Your task to perform on an android device: uninstall "The Home Depot" Image 0: 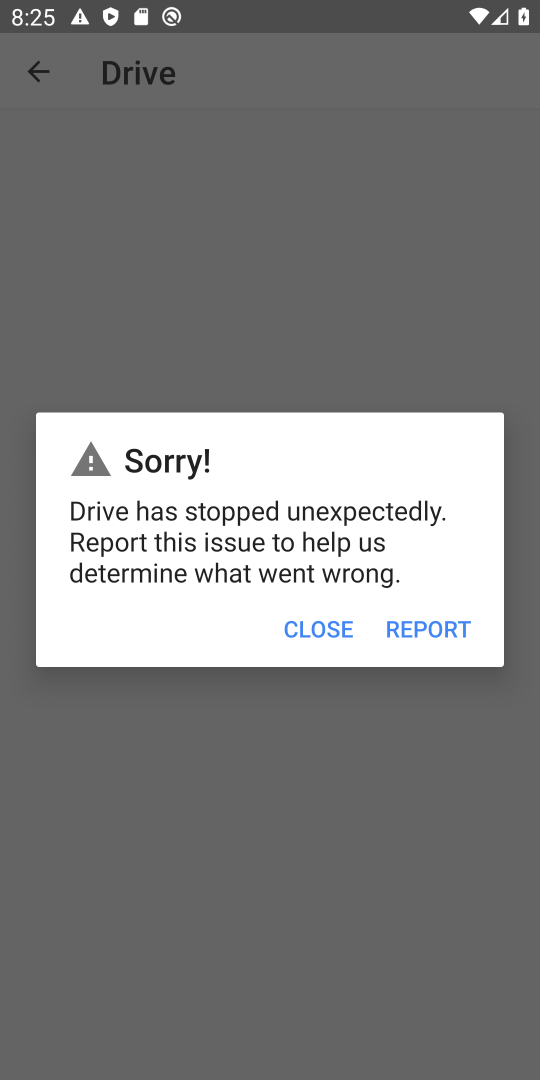
Step 0: press home button
Your task to perform on an android device: uninstall "The Home Depot" Image 1: 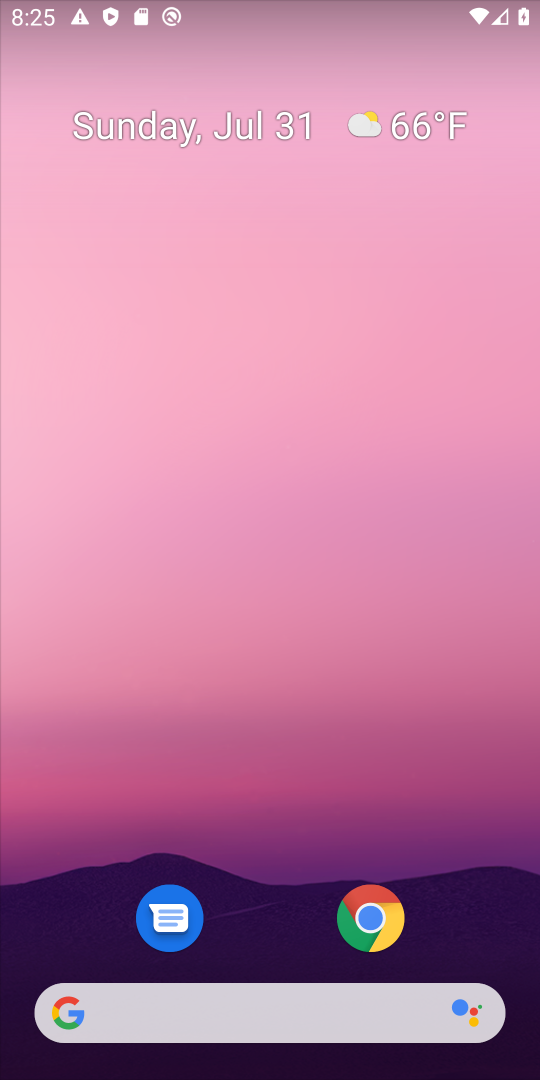
Step 1: drag from (226, 1056) to (252, 0)
Your task to perform on an android device: uninstall "The Home Depot" Image 2: 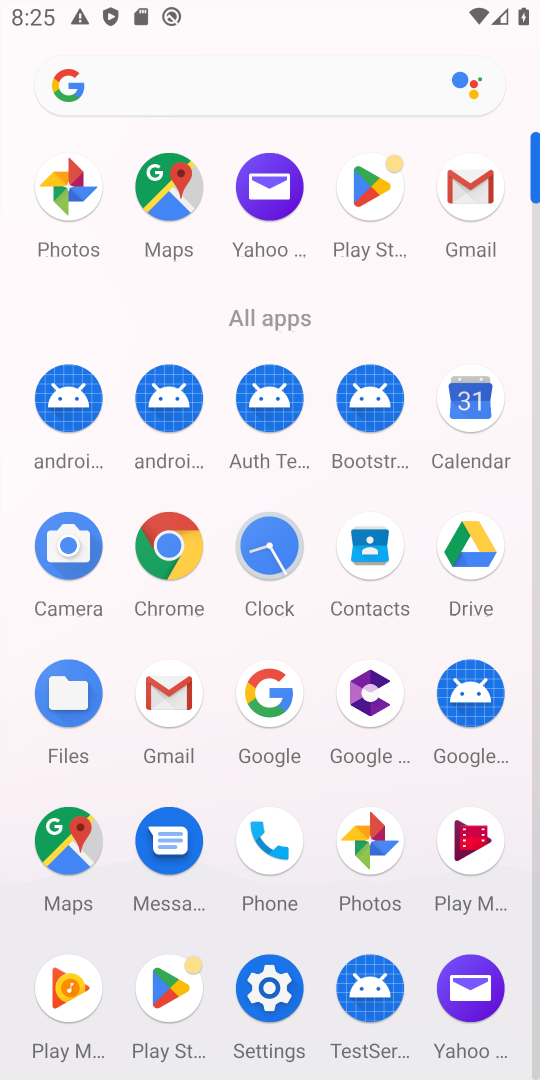
Step 2: click (358, 156)
Your task to perform on an android device: uninstall "The Home Depot" Image 3: 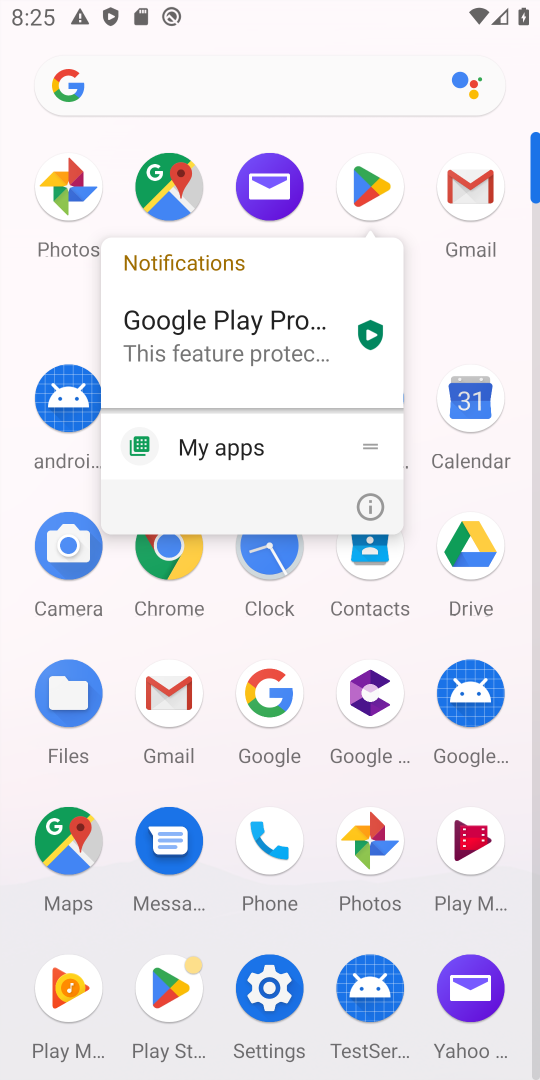
Step 3: click (358, 156)
Your task to perform on an android device: uninstall "The Home Depot" Image 4: 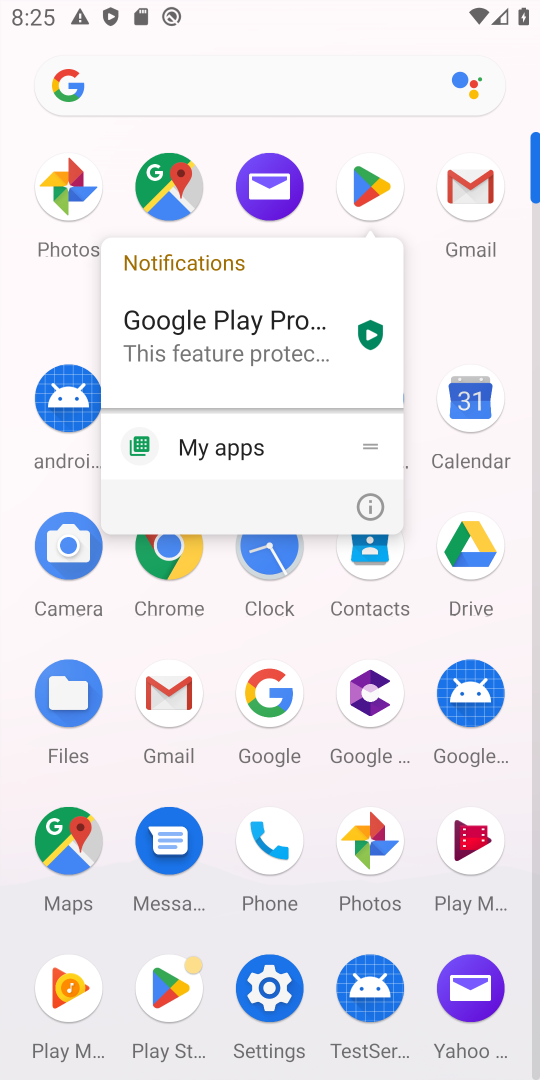
Step 4: click (358, 156)
Your task to perform on an android device: uninstall "The Home Depot" Image 5: 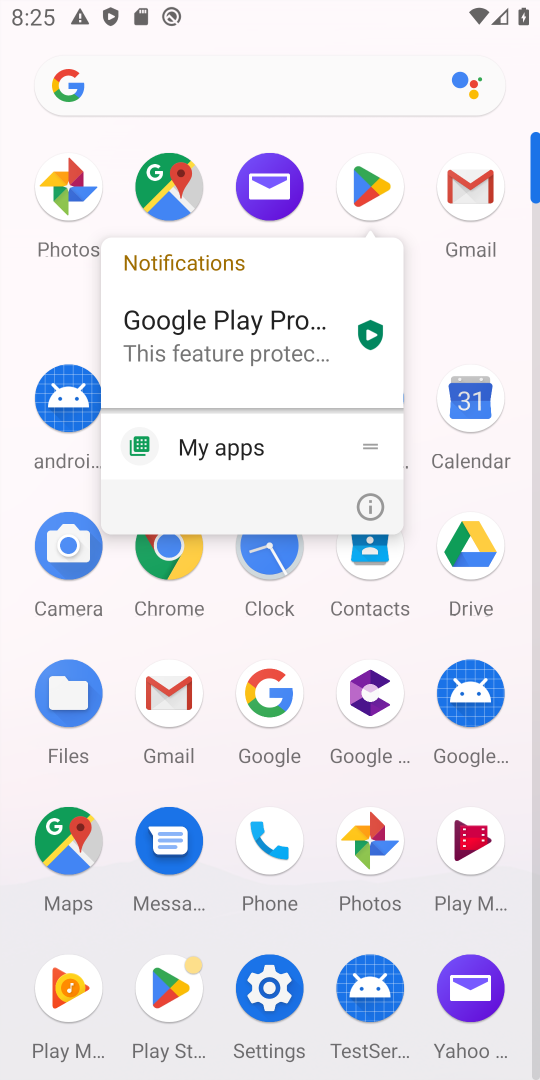
Step 5: click (385, 199)
Your task to perform on an android device: uninstall "The Home Depot" Image 6: 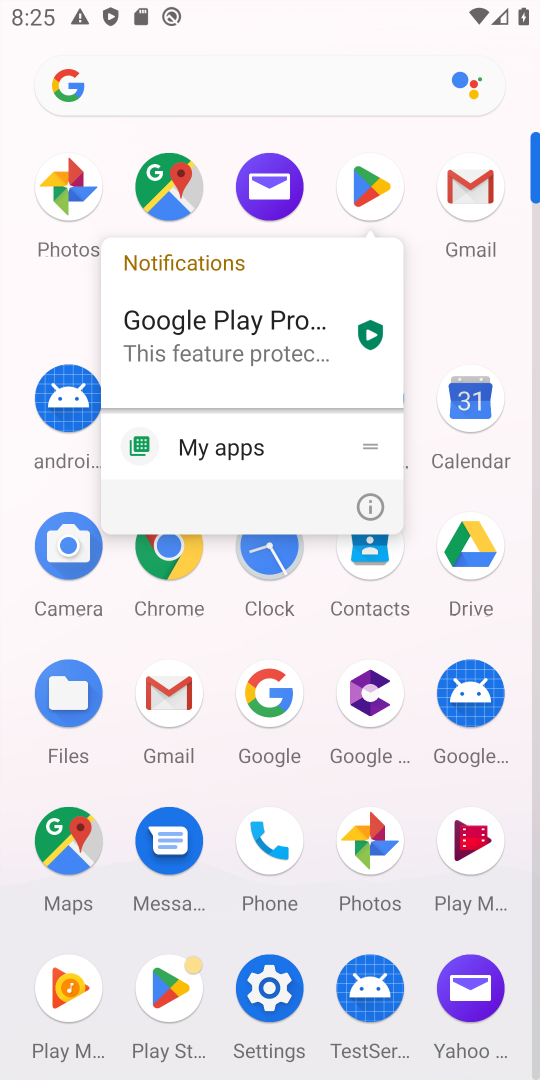
Step 6: click (385, 199)
Your task to perform on an android device: uninstall "The Home Depot" Image 7: 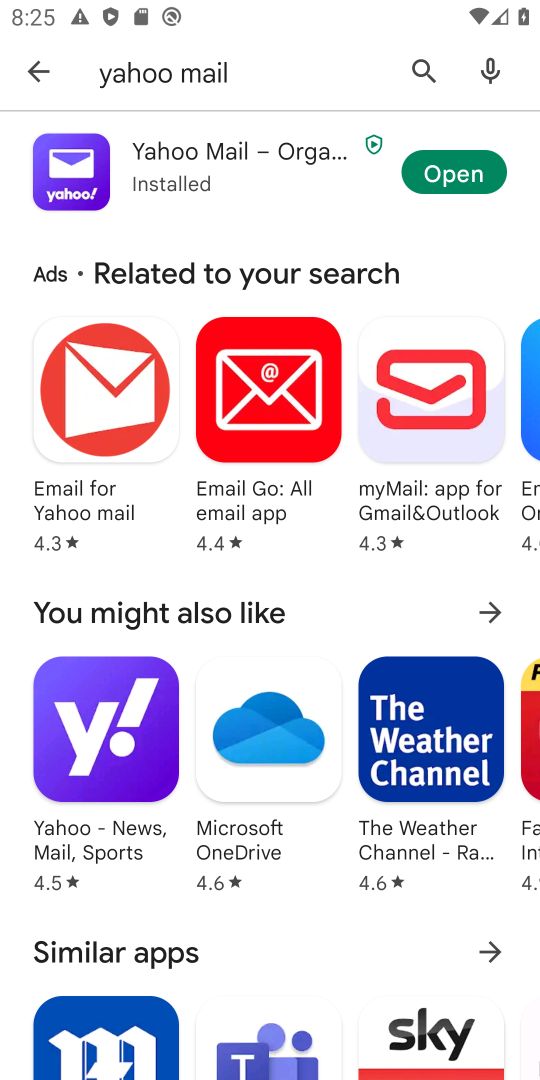
Step 7: click (420, 68)
Your task to perform on an android device: uninstall "The Home Depot" Image 8: 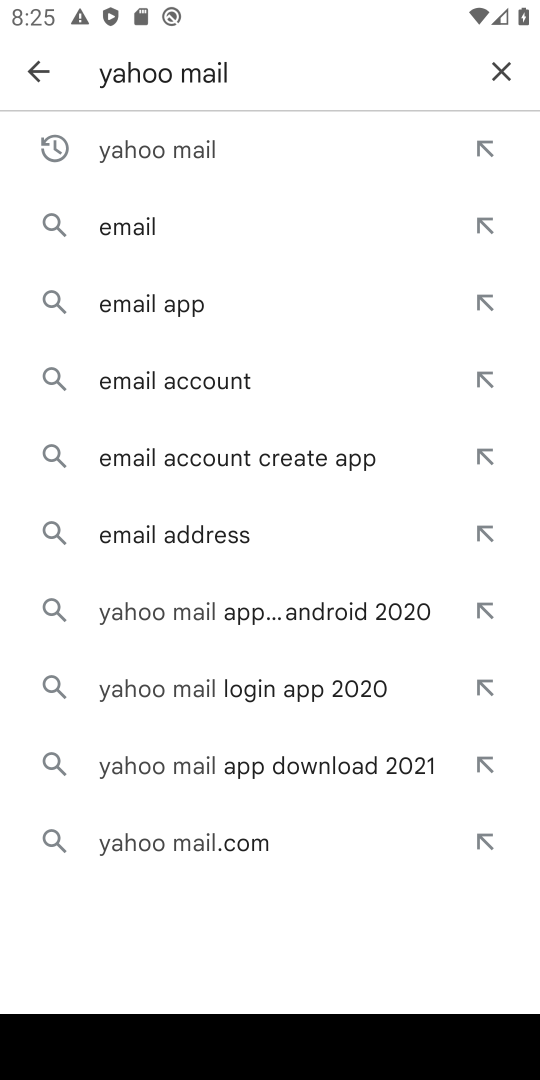
Step 8: click (503, 68)
Your task to perform on an android device: uninstall "The Home Depot" Image 9: 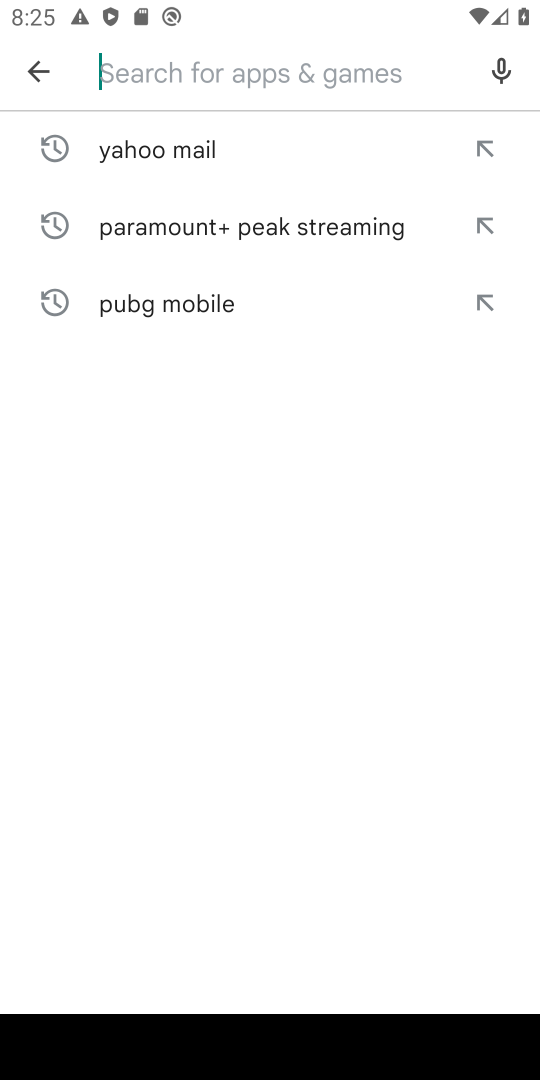
Step 9: type "The Home Depot"
Your task to perform on an android device: uninstall "The Home Depot" Image 10: 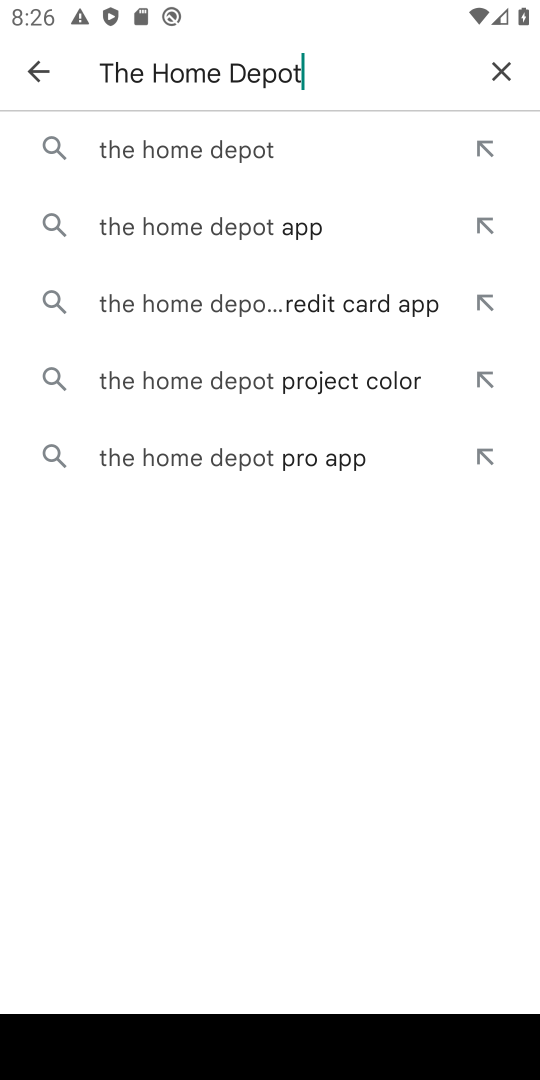
Step 10: click (149, 131)
Your task to perform on an android device: uninstall "The Home Depot" Image 11: 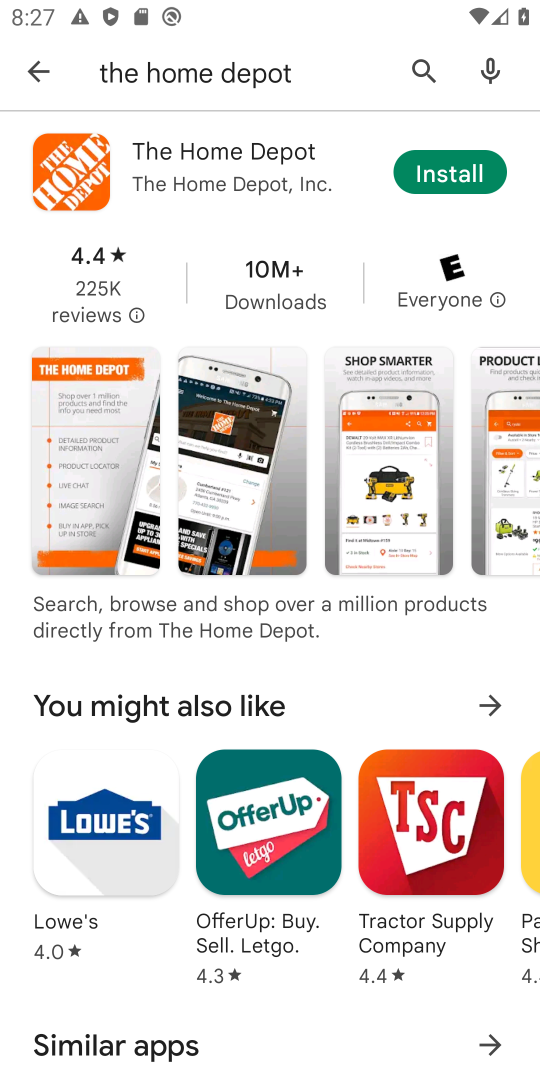
Step 11: task complete